Your task to perform on an android device: Open Android settings Image 0: 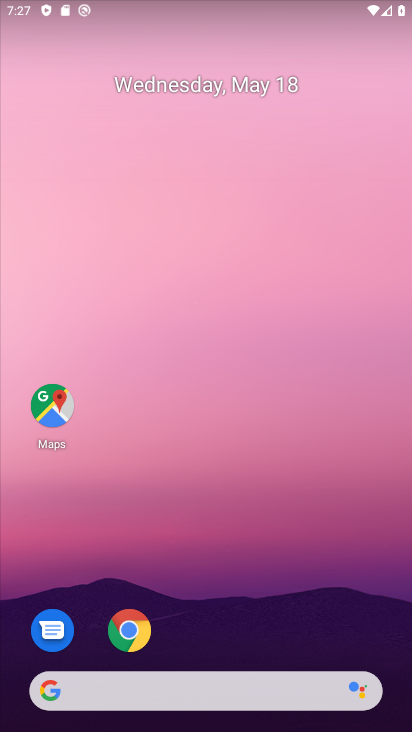
Step 0: drag from (283, 593) to (199, 57)
Your task to perform on an android device: Open Android settings Image 1: 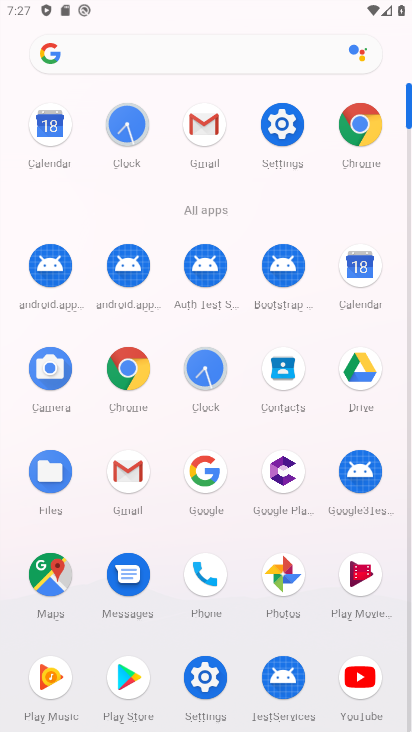
Step 1: click (280, 129)
Your task to perform on an android device: Open Android settings Image 2: 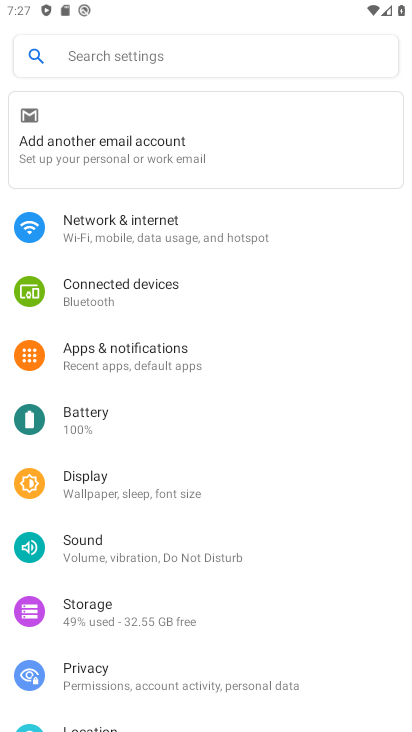
Step 2: task complete